Your task to perform on an android device: change the clock style Image 0: 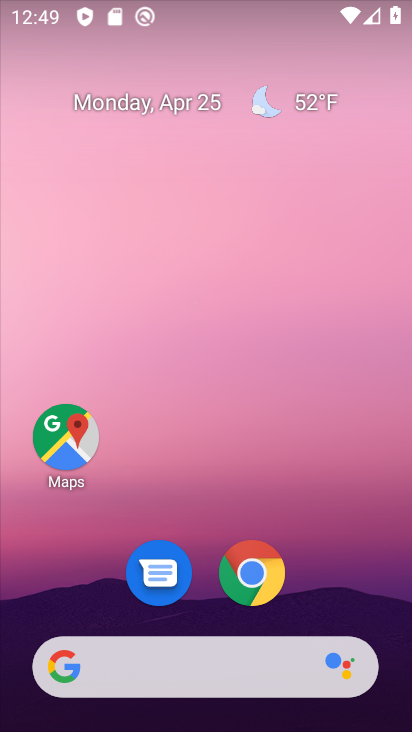
Step 0: drag from (324, 502) to (271, 189)
Your task to perform on an android device: change the clock style Image 1: 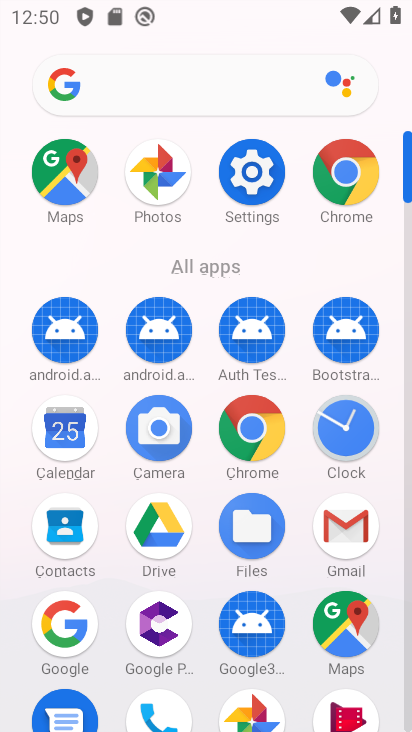
Step 1: drag from (189, 267) to (195, 111)
Your task to perform on an android device: change the clock style Image 2: 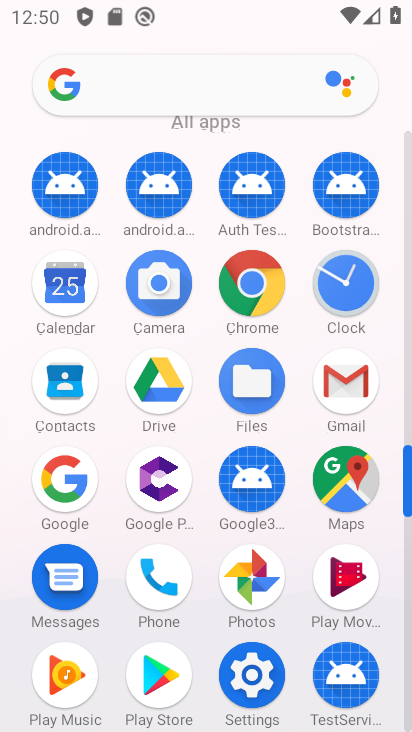
Step 2: click (372, 296)
Your task to perform on an android device: change the clock style Image 3: 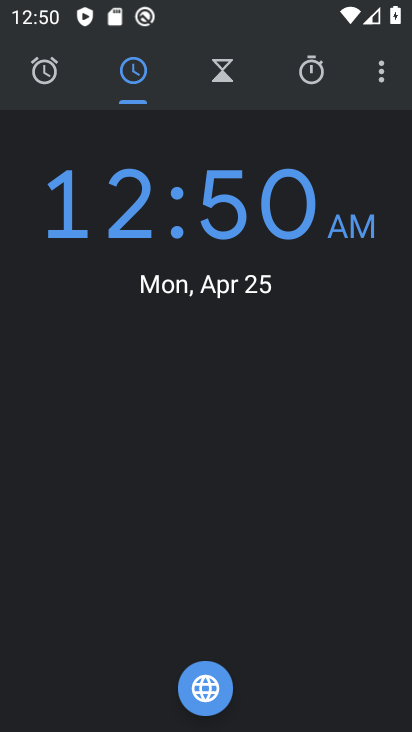
Step 3: click (380, 99)
Your task to perform on an android device: change the clock style Image 4: 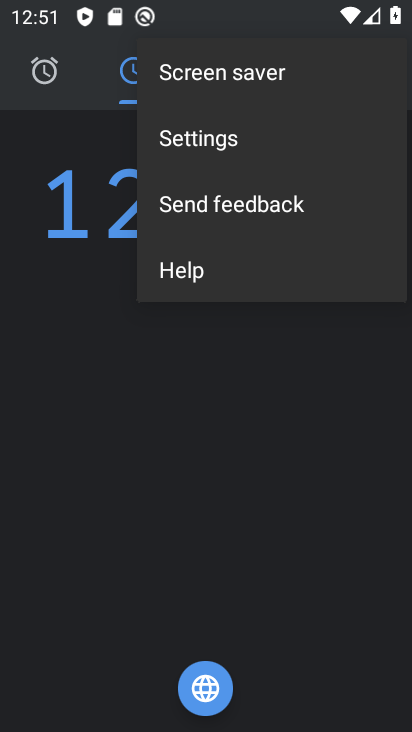
Step 4: click (210, 126)
Your task to perform on an android device: change the clock style Image 5: 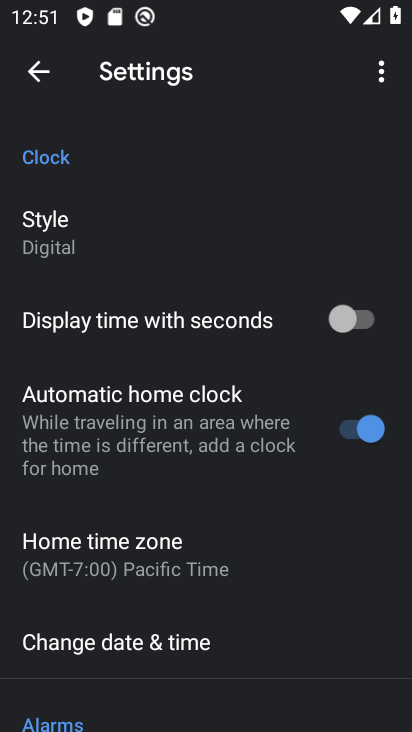
Step 5: click (301, 242)
Your task to perform on an android device: change the clock style Image 6: 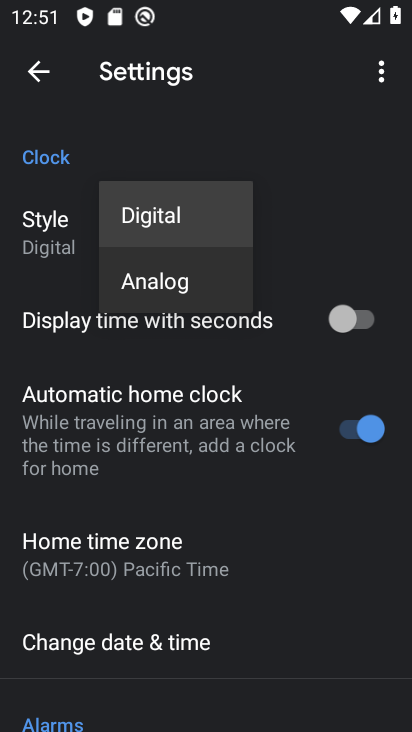
Step 6: click (163, 284)
Your task to perform on an android device: change the clock style Image 7: 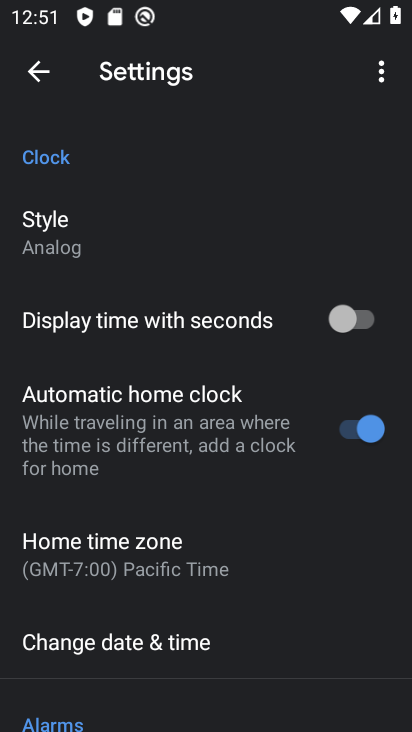
Step 7: task complete